Your task to perform on an android device: Show me the alarms in the clock app Image 0: 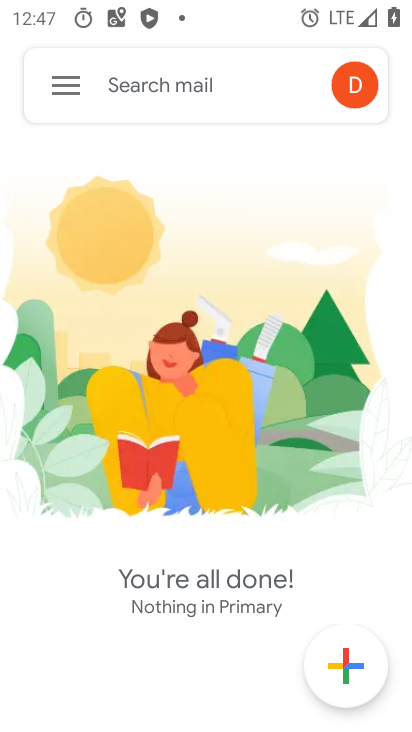
Step 0: press home button
Your task to perform on an android device: Show me the alarms in the clock app Image 1: 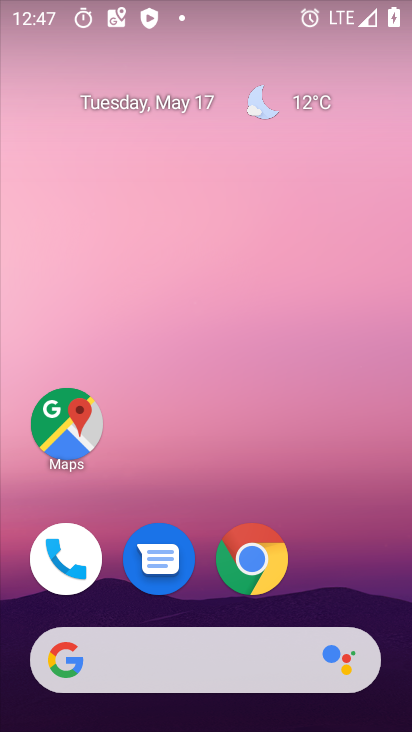
Step 1: drag from (325, 536) to (290, 154)
Your task to perform on an android device: Show me the alarms in the clock app Image 2: 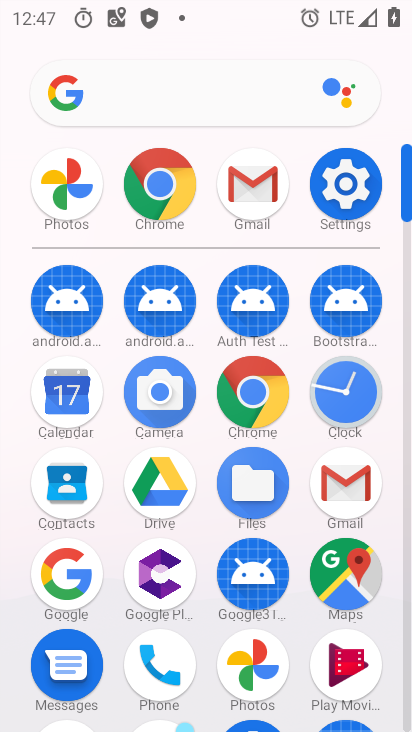
Step 2: click (335, 401)
Your task to perform on an android device: Show me the alarms in the clock app Image 3: 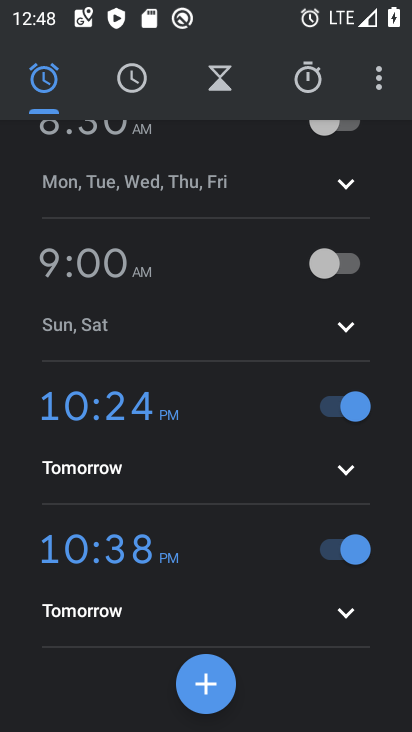
Step 3: task complete